Your task to perform on an android device: allow notifications from all sites in the chrome app Image 0: 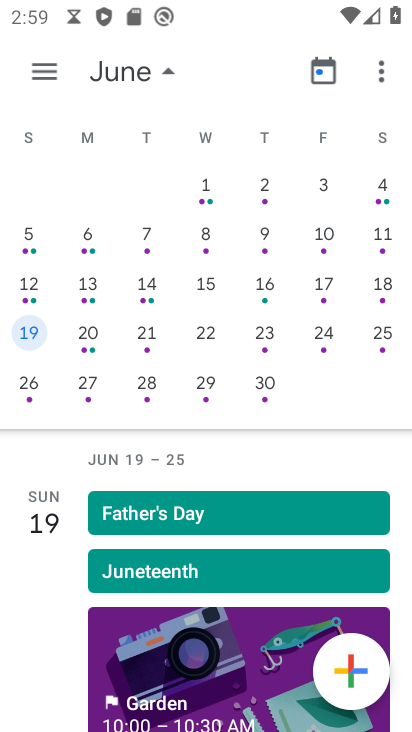
Step 0: press home button
Your task to perform on an android device: allow notifications from all sites in the chrome app Image 1: 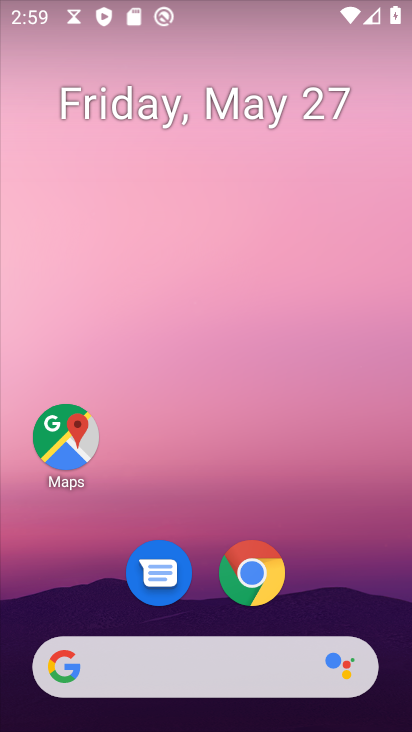
Step 1: click (253, 573)
Your task to perform on an android device: allow notifications from all sites in the chrome app Image 2: 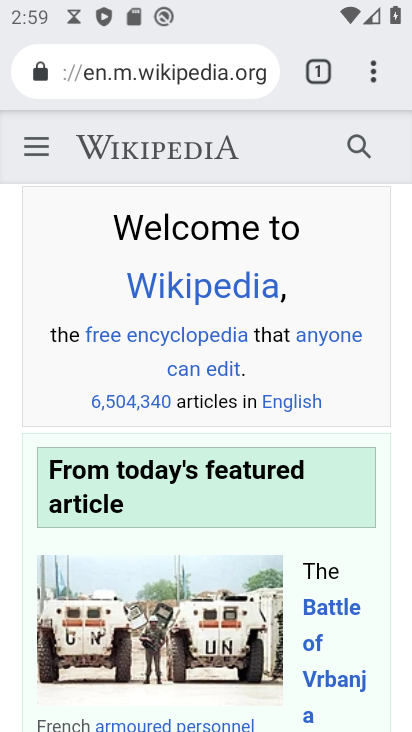
Step 2: click (363, 67)
Your task to perform on an android device: allow notifications from all sites in the chrome app Image 3: 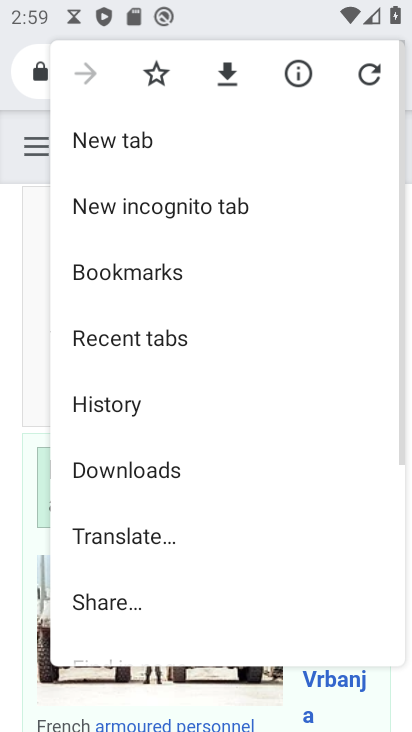
Step 3: drag from (167, 613) to (258, 80)
Your task to perform on an android device: allow notifications from all sites in the chrome app Image 4: 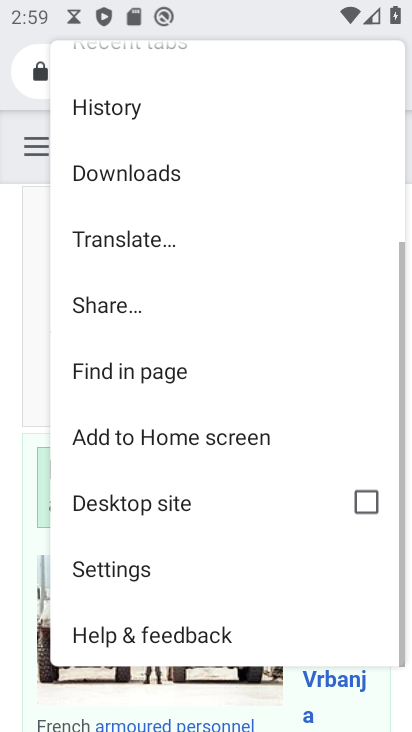
Step 4: click (153, 569)
Your task to perform on an android device: allow notifications from all sites in the chrome app Image 5: 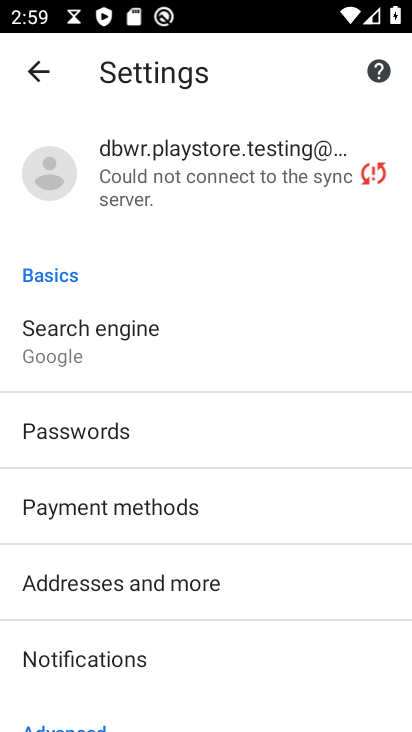
Step 5: click (92, 664)
Your task to perform on an android device: allow notifications from all sites in the chrome app Image 6: 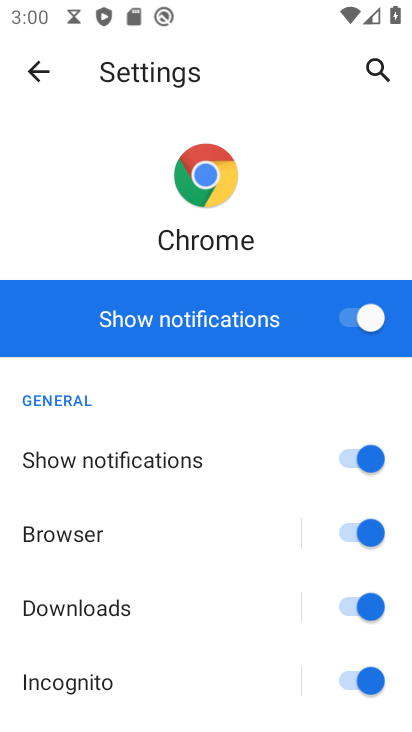
Step 6: task complete